Your task to perform on an android device: manage bookmarks in the chrome app Image 0: 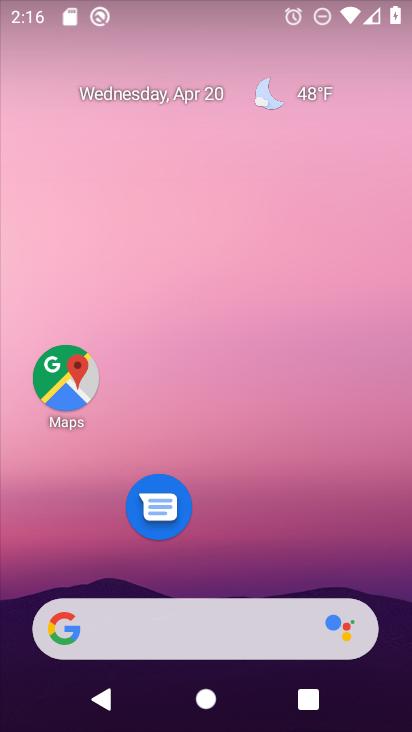
Step 0: drag from (208, 725) to (193, 156)
Your task to perform on an android device: manage bookmarks in the chrome app Image 1: 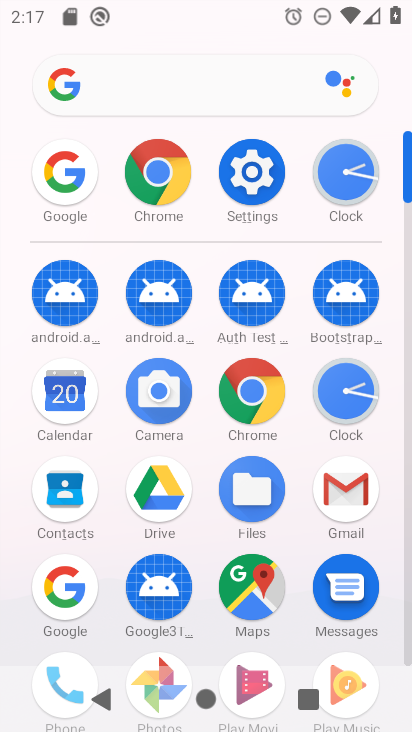
Step 1: click (252, 391)
Your task to perform on an android device: manage bookmarks in the chrome app Image 2: 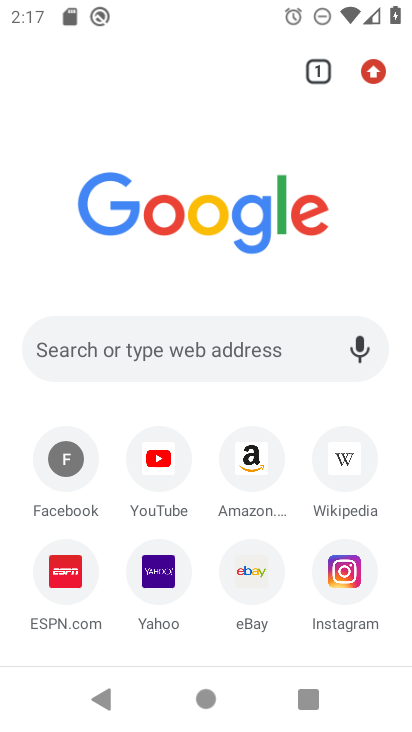
Step 2: click (374, 79)
Your task to perform on an android device: manage bookmarks in the chrome app Image 3: 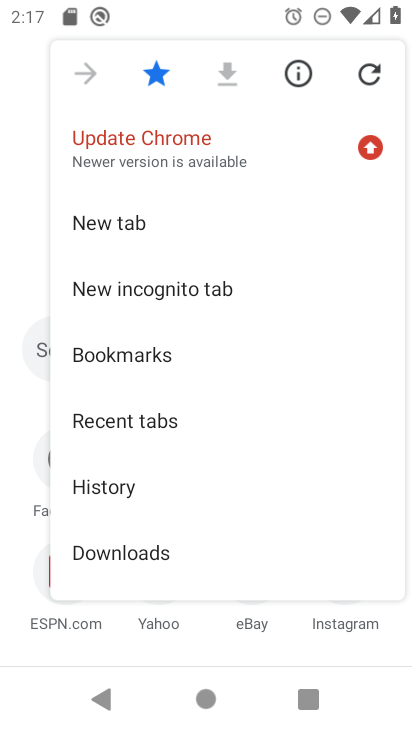
Step 3: click (135, 353)
Your task to perform on an android device: manage bookmarks in the chrome app Image 4: 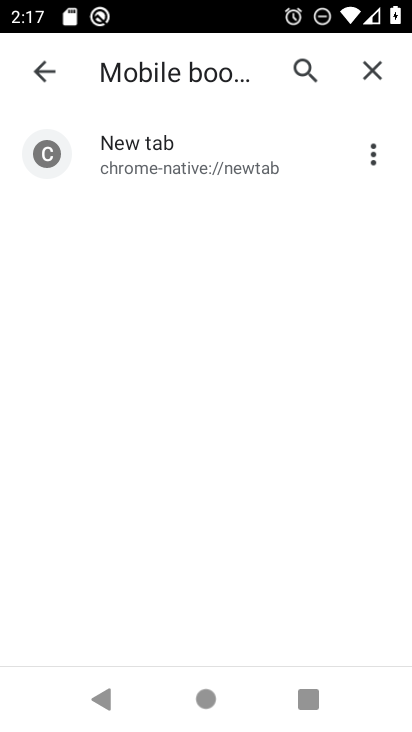
Step 4: click (369, 157)
Your task to perform on an android device: manage bookmarks in the chrome app Image 5: 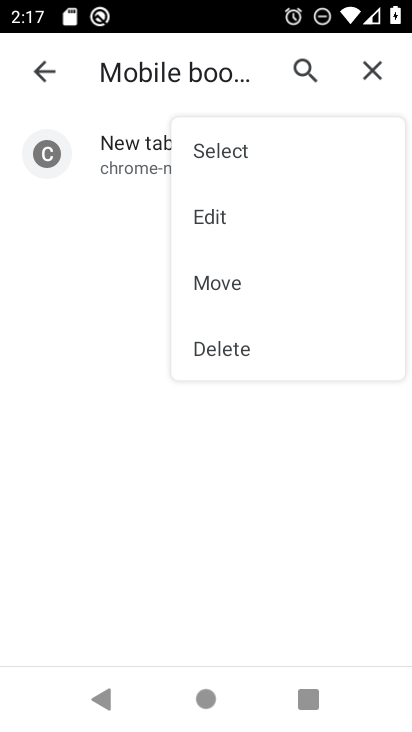
Step 5: click (216, 214)
Your task to perform on an android device: manage bookmarks in the chrome app Image 6: 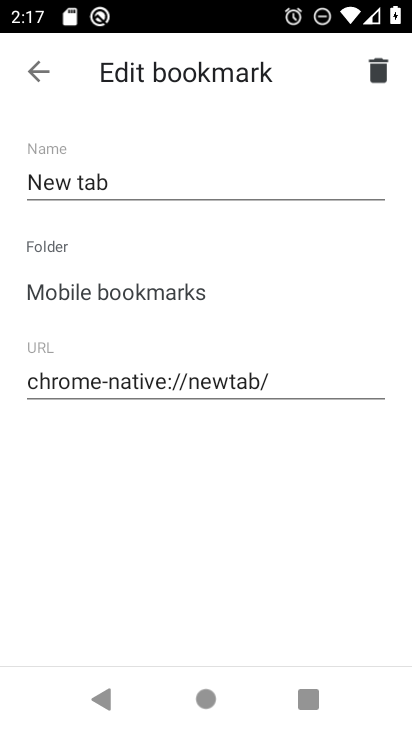
Step 6: click (118, 186)
Your task to perform on an android device: manage bookmarks in the chrome app Image 7: 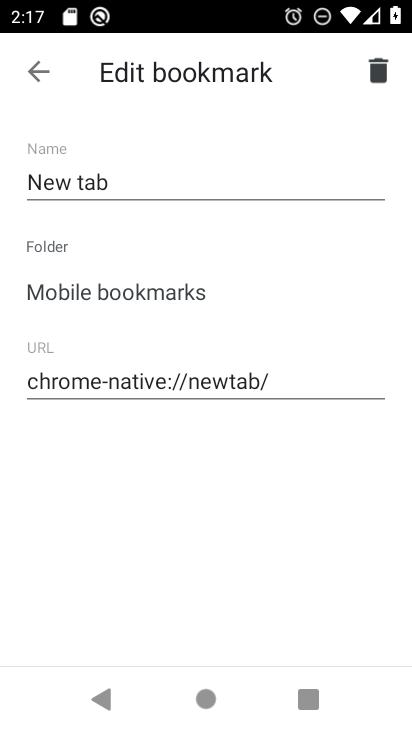
Step 7: click (118, 186)
Your task to perform on an android device: manage bookmarks in the chrome app Image 8: 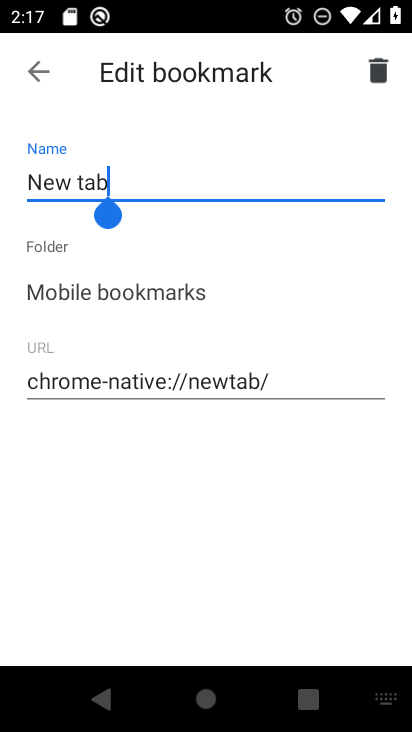
Step 8: click (78, 178)
Your task to perform on an android device: manage bookmarks in the chrome app Image 9: 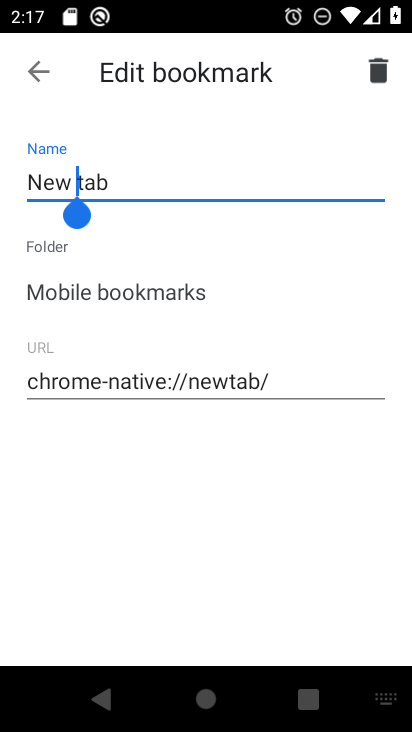
Step 9: click (91, 180)
Your task to perform on an android device: manage bookmarks in the chrome app Image 10: 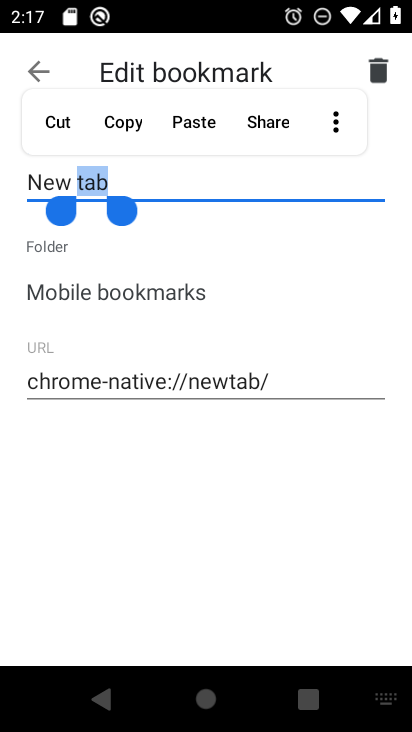
Step 10: drag from (51, 203) to (0, 190)
Your task to perform on an android device: manage bookmarks in the chrome app Image 11: 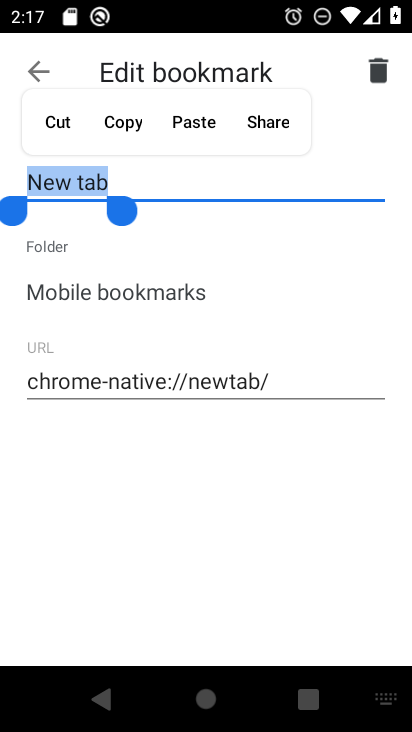
Step 11: click (46, 117)
Your task to perform on an android device: manage bookmarks in the chrome app Image 12: 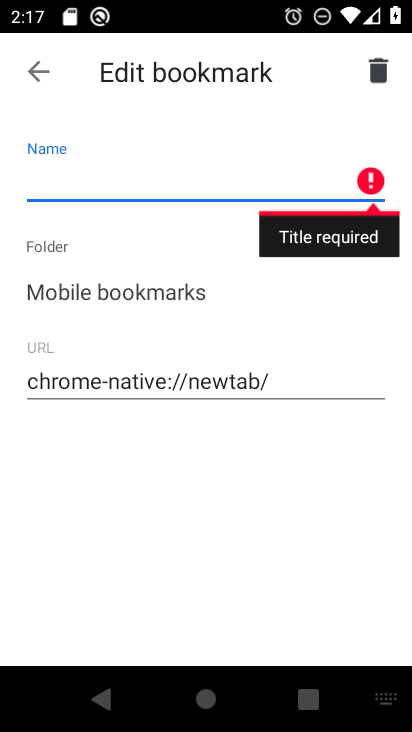
Step 12: type "page"
Your task to perform on an android device: manage bookmarks in the chrome app Image 13: 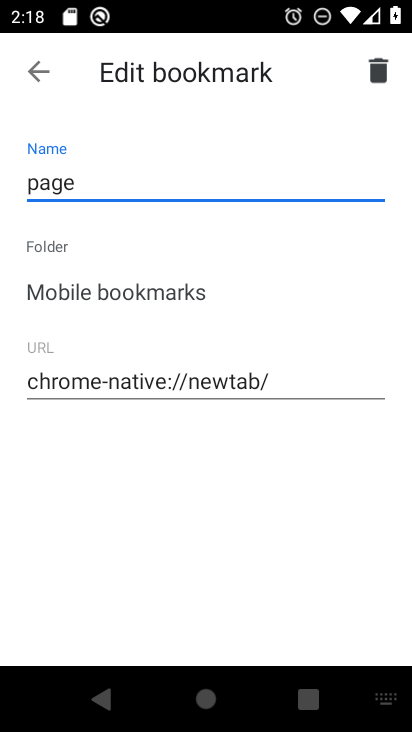
Step 13: click (35, 72)
Your task to perform on an android device: manage bookmarks in the chrome app Image 14: 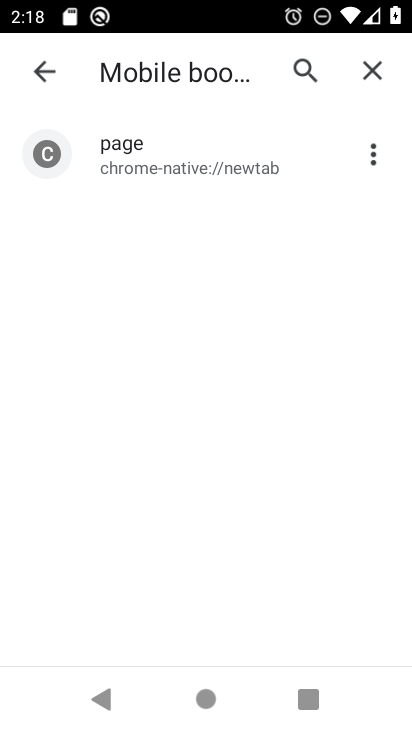
Step 14: task complete